Your task to perform on an android device: Do I have any events tomorrow? Image 0: 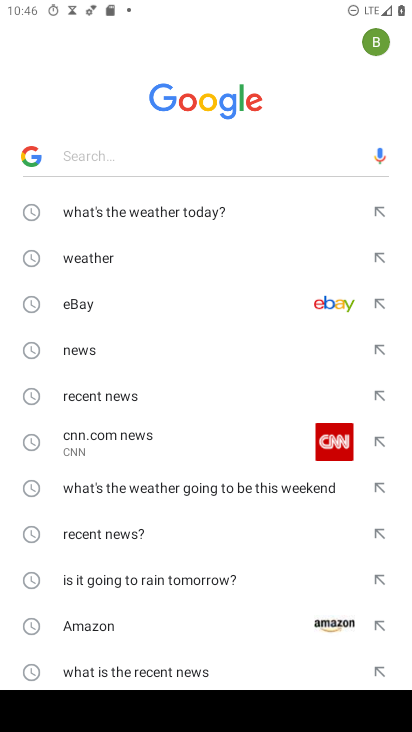
Step 0: press home button
Your task to perform on an android device: Do I have any events tomorrow? Image 1: 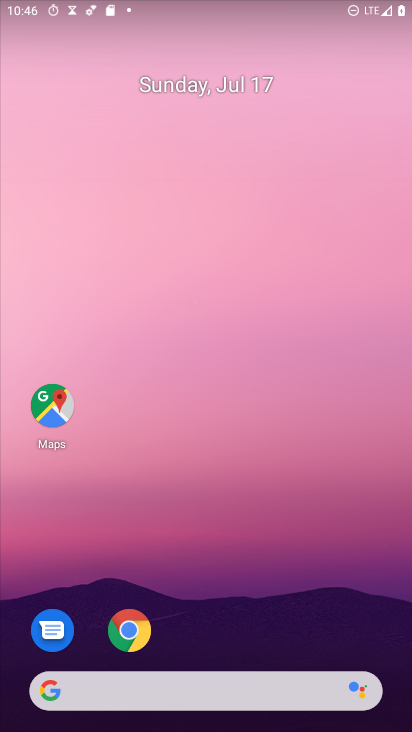
Step 1: drag from (139, 698) to (110, 5)
Your task to perform on an android device: Do I have any events tomorrow? Image 2: 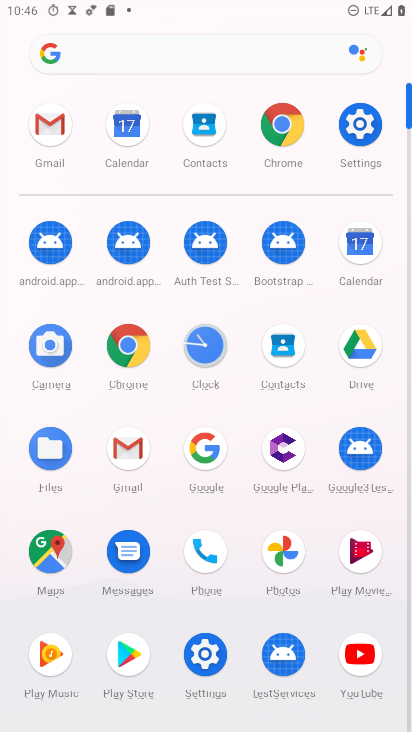
Step 2: click (360, 243)
Your task to perform on an android device: Do I have any events tomorrow? Image 3: 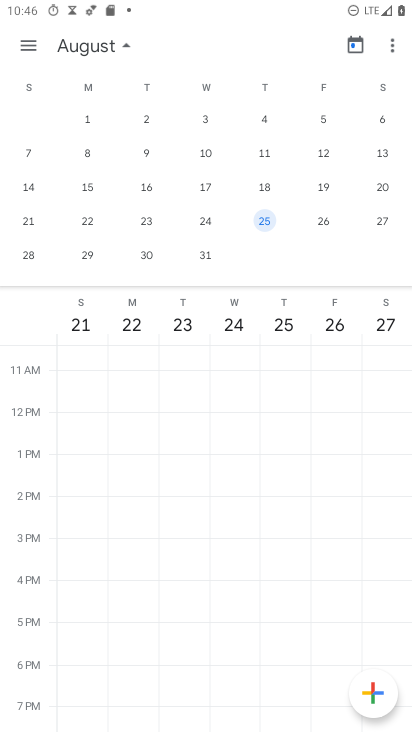
Step 3: drag from (35, 181) to (366, 168)
Your task to perform on an android device: Do I have any events tomorrow? Image 4: 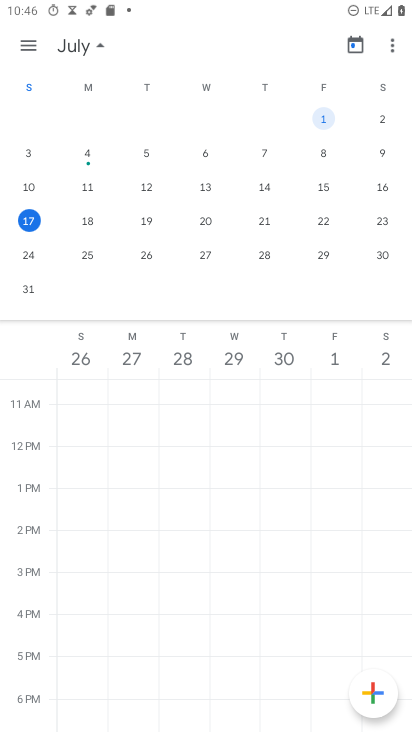
Step 4: click (88, 223)
Your task to perform on an android device: Do I have any events tomorrow? Image 5: 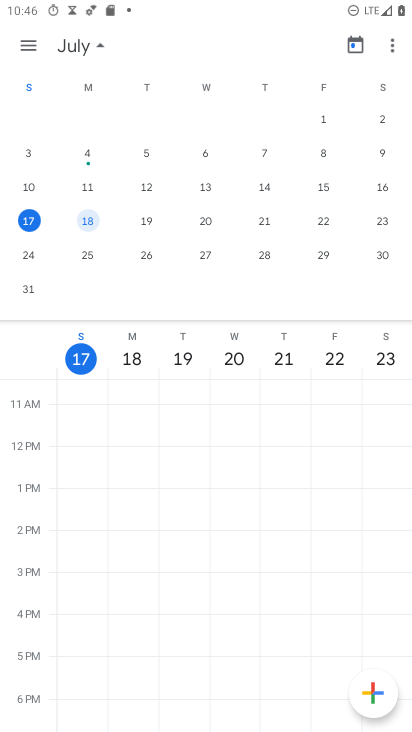
Step 5: task complete